Your task to perform on an android device: toggle location history Image 0: 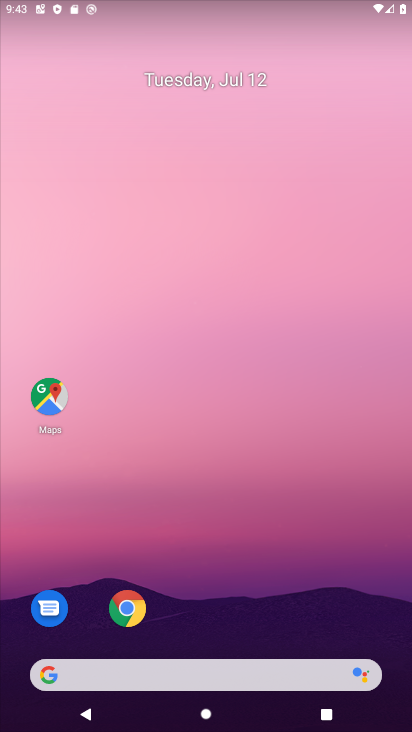
Step 0: drag from (308, 563) to (353, 84)
Your task to perform on an android device: toggle location history Image 1: 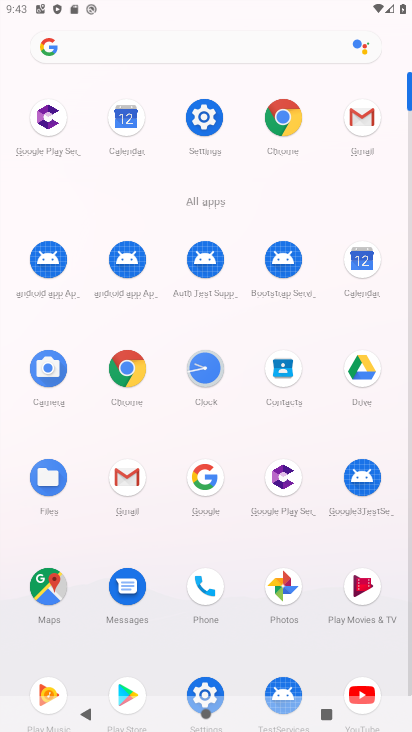
Step 1: click (197, 113)
Your task to perform on an android device: toggle location history Image 2: 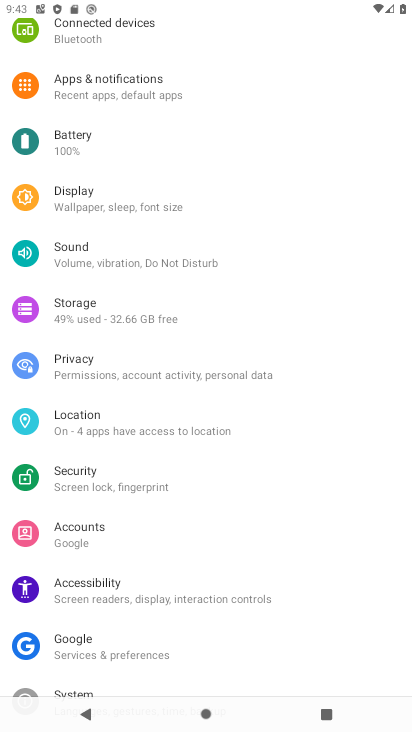
Step 2: click (131, 423)
Your task to perform on an android device: toggle location history Image 3: 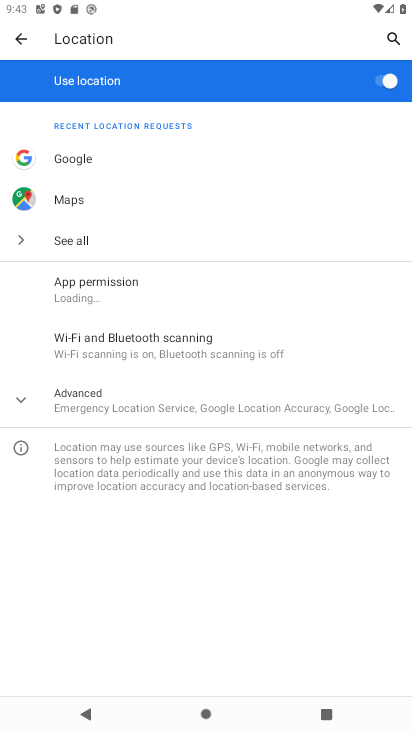
Step 3: click (154, 400)
Your task to perform on an android device: toggle location history Image 4: 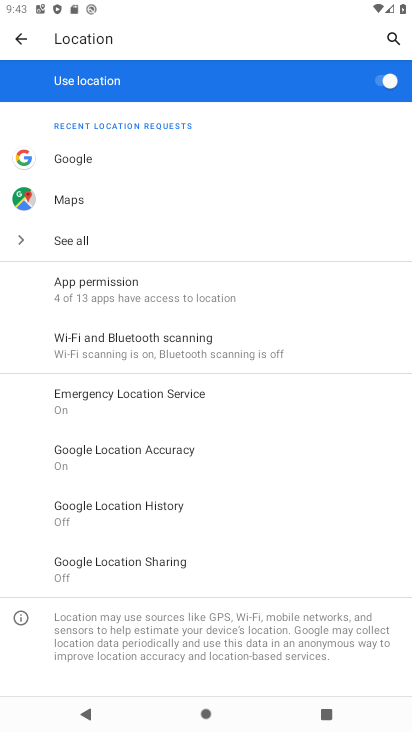
Step 4: click (152, 501)
Your task to perform on an android device: toggle location history Image 5: 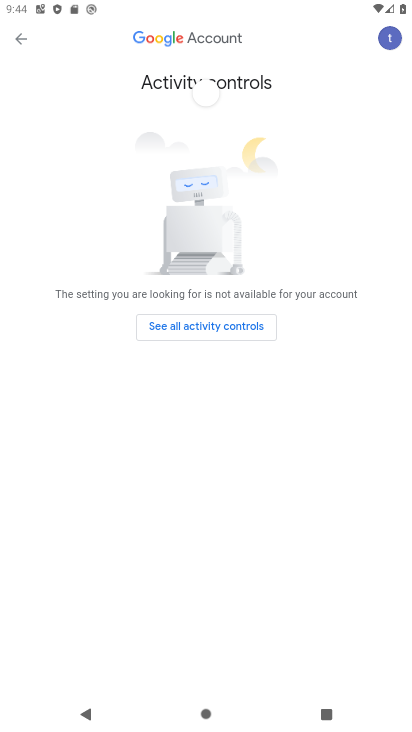
Step 5: click (218, 330)
Your task to perform on an android device: toggle location history Image 6: 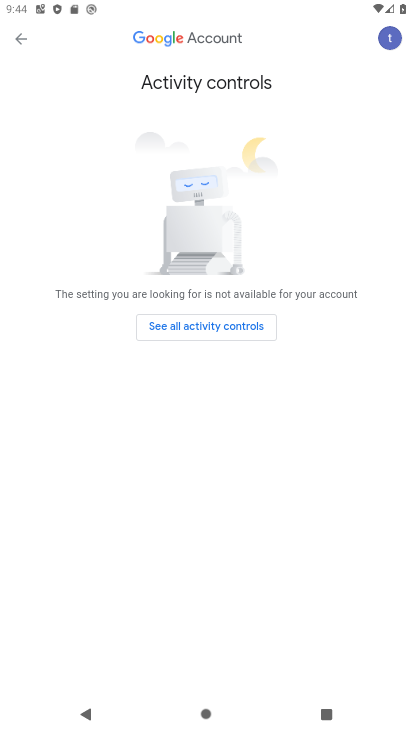
Step 6: click (218, 330)
Your task to perform on an android device: toggle location history Image 7: 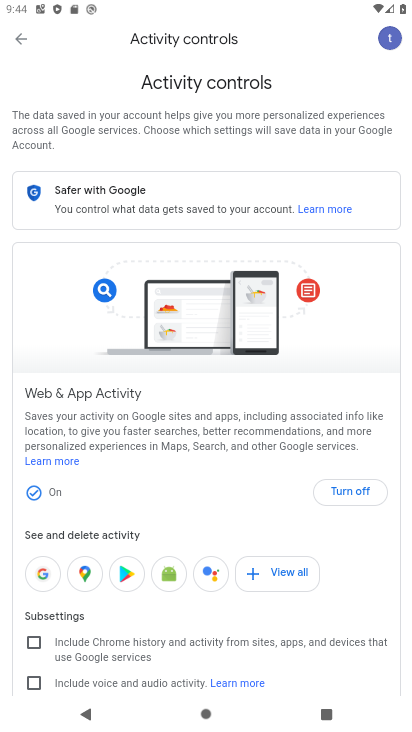
Step 7: click (351, 491)
Your task to perform on an android device: toggle location history Image 8: 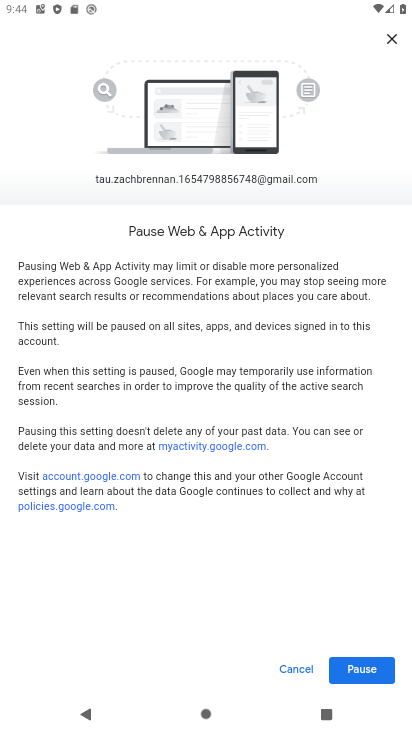
Step 8: click (354, 675)
Your task to perform on an android device: toggle location history Image 9: 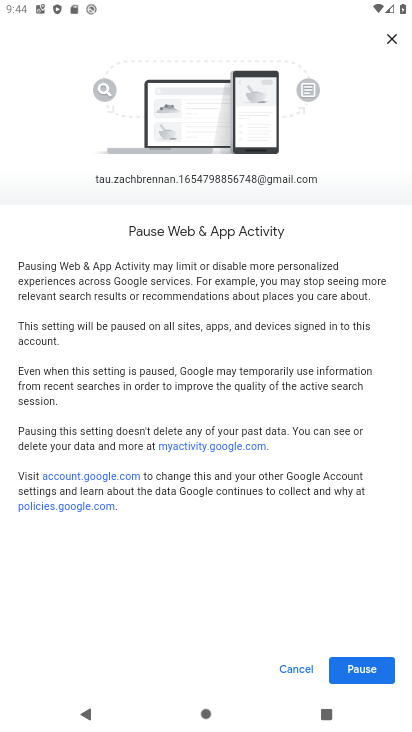
Step 9: click (354, 675)
Your task to perform on an android device: toggle location history Image 10: 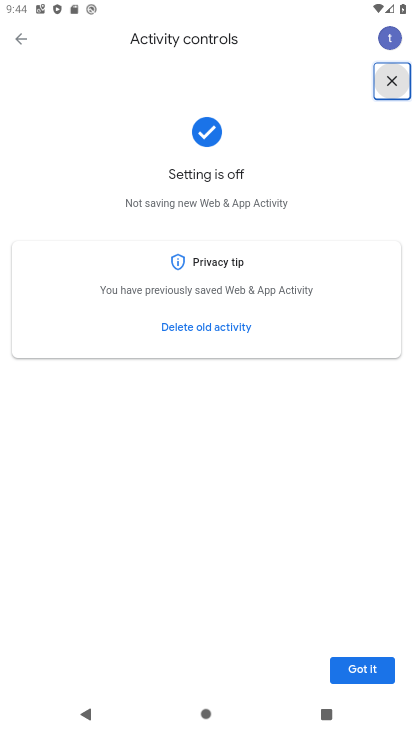
Step 10: click (363, 671)
Your task to perform on an android device: toggle location history Image 11: 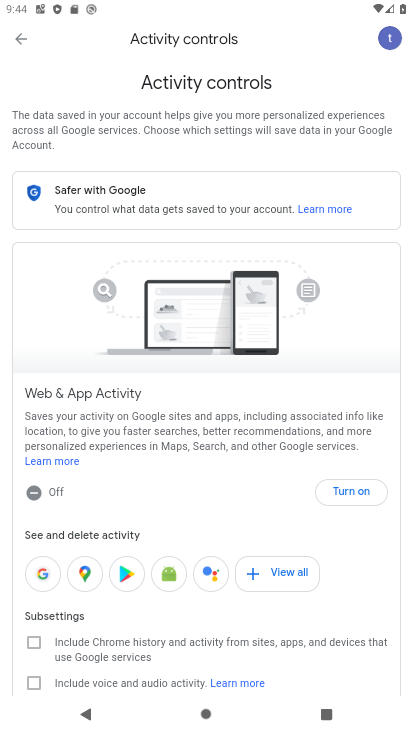
Step 11: task complete